Your task to perform on an android device: Open Amazon Image 0: 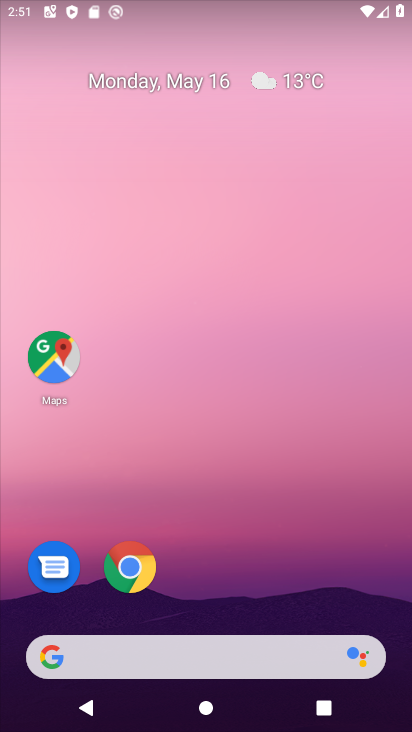
Step 0: drag from (264, 592) to (335, 42)
Your task to perform on an android device: Open Amazon Image 1: 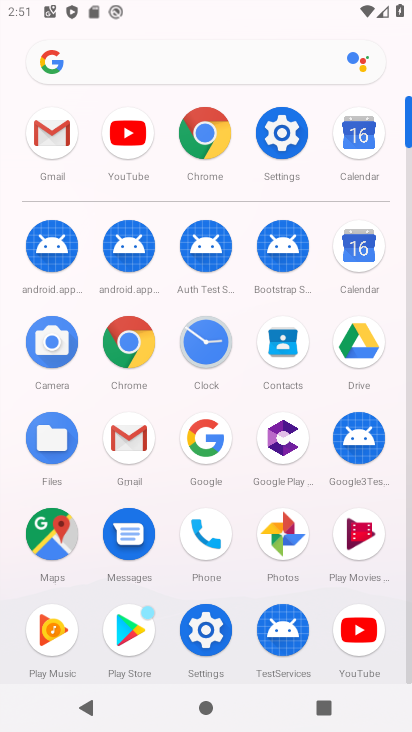
Step 1: click (211, 139)
Your task to perform on an android device: Open Amazon Image 2: 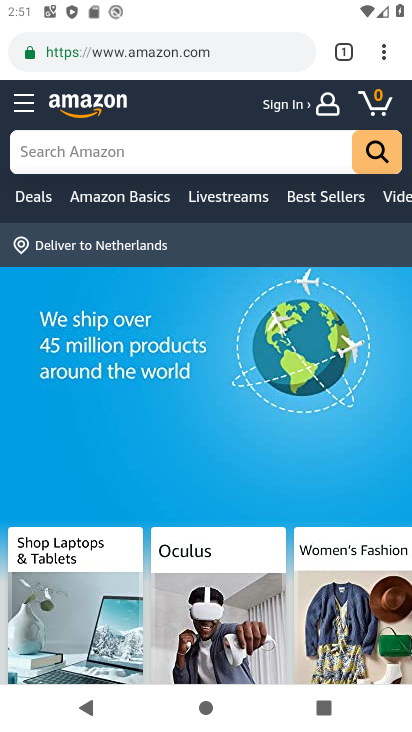
Step 2: task complete